Your task to perform on an android device: Check the news Image 0: 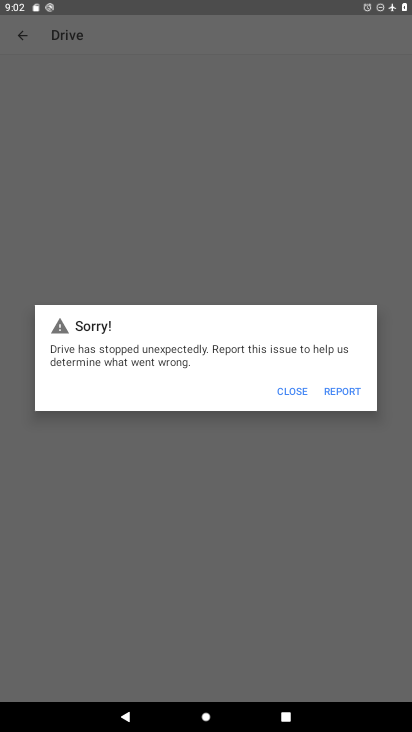
Step 0: press home button
Your task to perform on an android device: Check the news Image 1: 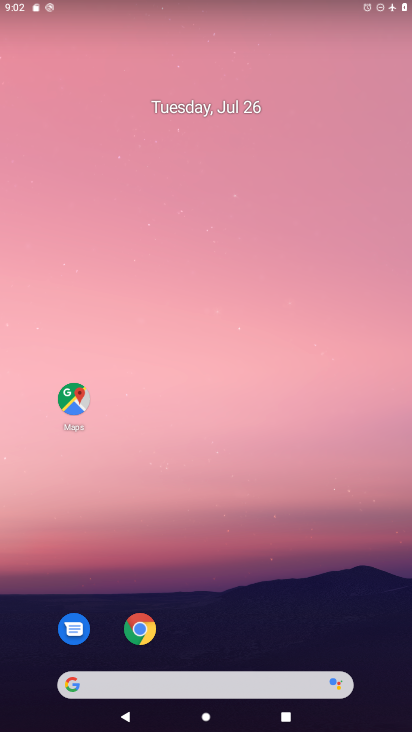
Step 1: click (197, 675)
Your task to perform on an android device: Check the news Image 2: 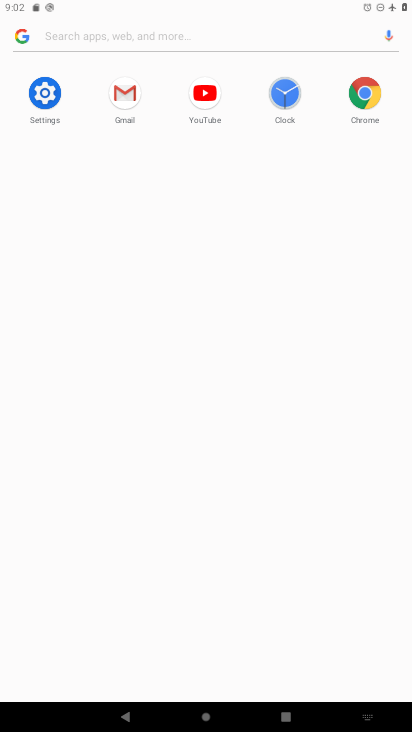
Step 2: type " news"
Your task to perform on an android device: Check the news Image 3: 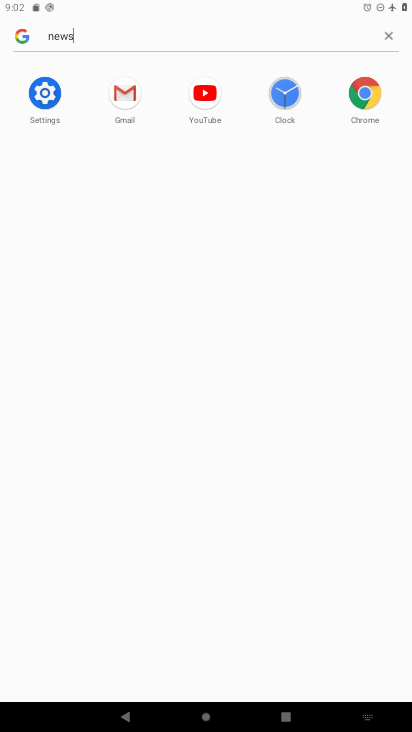
Step 3: type ""
Your task to perform on an android device: Check the news Image 4: 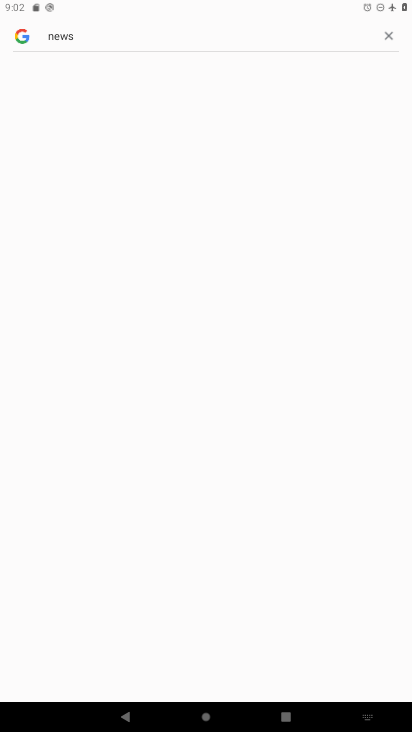
Step 4: task complete